Your task to perform on an android device: Go to CNN.com Image 0: 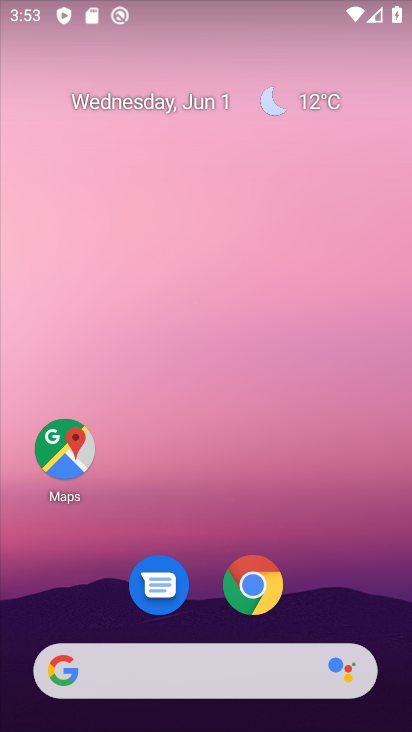
Step 0: click (244, 680)
Your task to perform on an android device: Go to CNN.com Image 1: 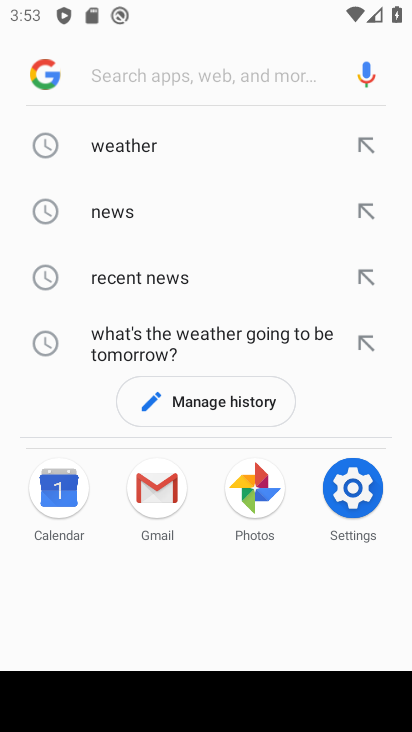
Step 1: type "cnn.com"
Your task to perform on an android device: Go to CNN.com Image 2: 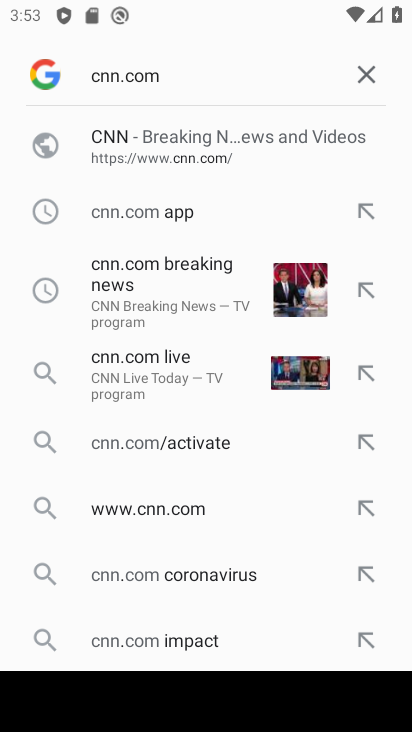
Step 2: click (174, 138)
Your task to perform on an android device: Go to CNN.com Image 3: 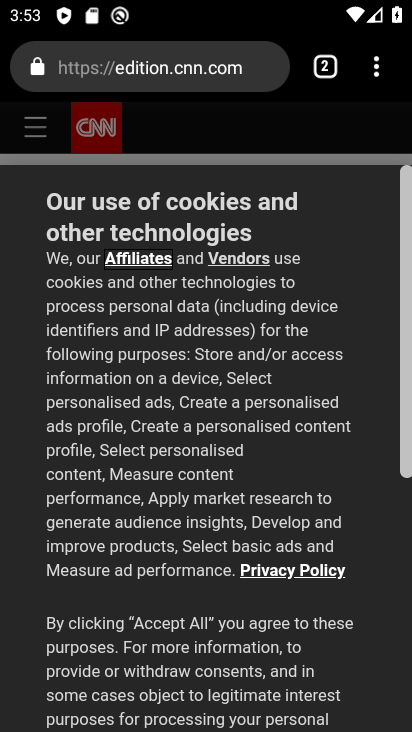
Step 3: task complete